Your task to perform on an android device: change keyboard looks Image 0: 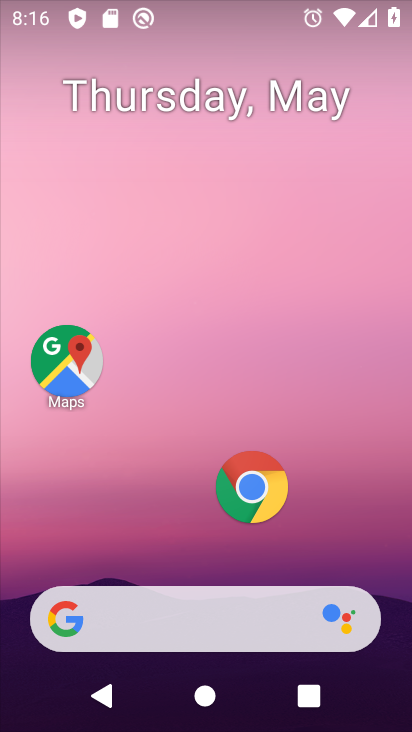
Step 0: click (218, 53)
Your task to perform on an android device: change keyboard looks Image 1: 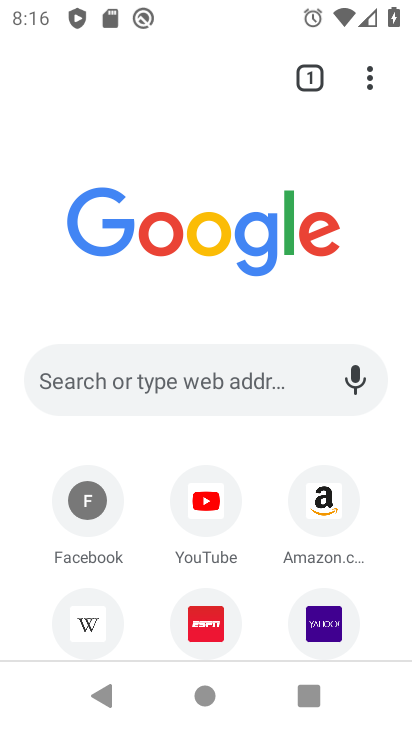
Step 1: press back button
Your task to perform on an android device: change keyboard looks Image 2: 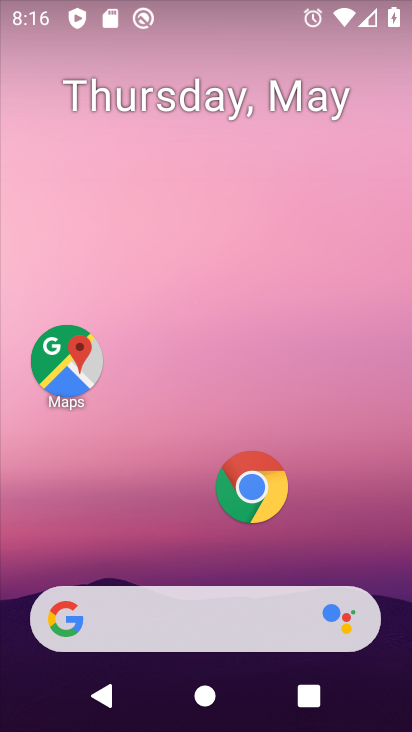
Step 2: drag from (264, 607) to (196, 93)
Your task to perform on an android device: change keyboard looks Image 3: 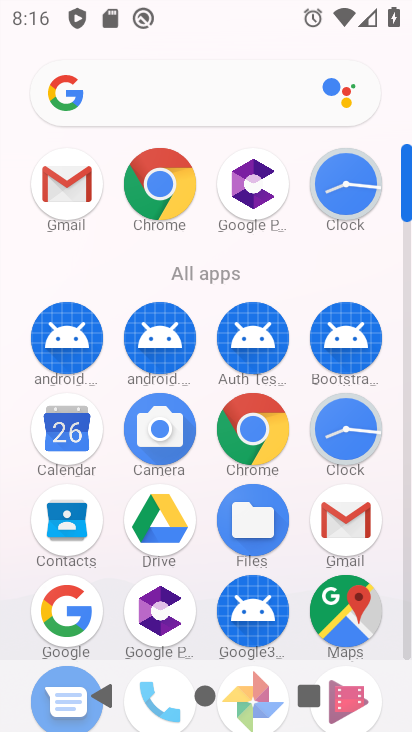
Step 3: drag from (404, 489) to (405, 535)
Your task to perform on an android device: change keyboard looks Image 4: 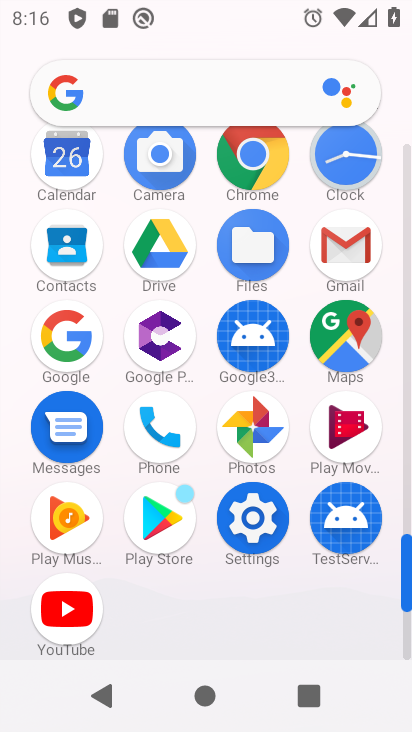
Step 4: click (254, 530)
Your task to perform on an android device: change keyboard looks Image 5: 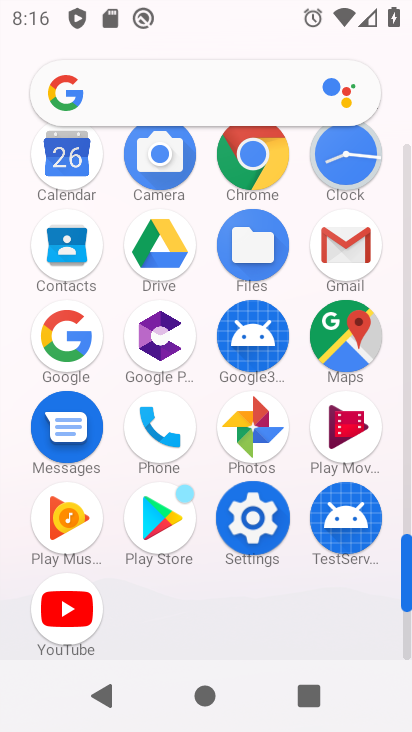
Step 5: click (254, 529)
Your task to perform on an android device: change keyboard looks Image 6: 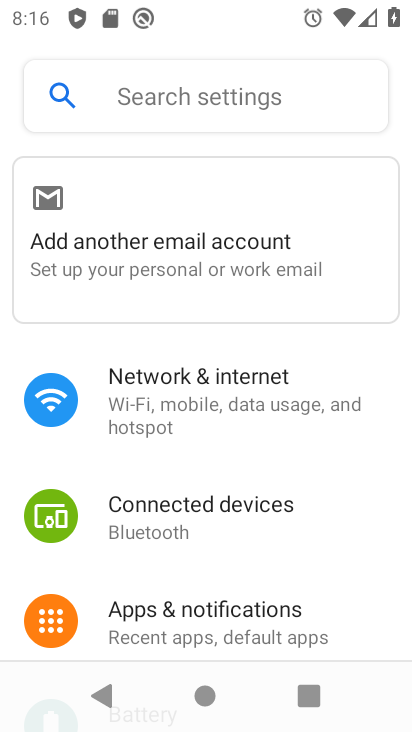
Step 6: click (379, 536)
Your task to perform on an android device: change keyboard looks Image 7: 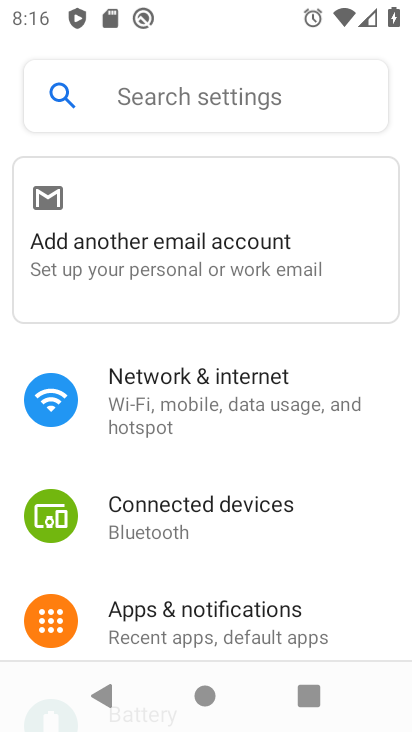
Step 7: drag from (347, 579) to (303, 181)
Your task to perform on an android device: change keyboard looks Image 8: 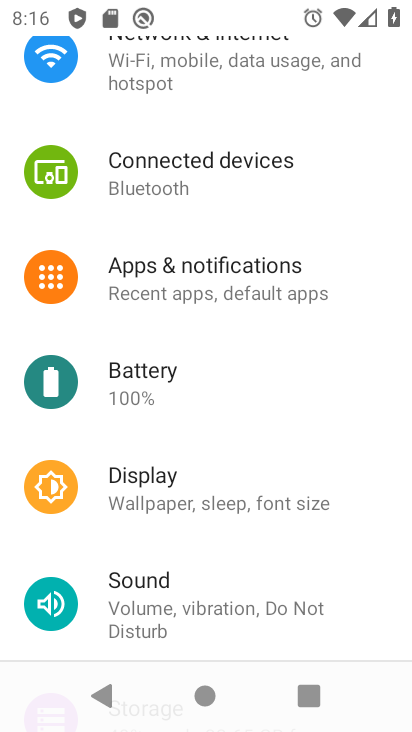
Step 8: drag from (298, 551) to (291, 4)
Your task to perform on an android device: change keyboard looks Image 9: 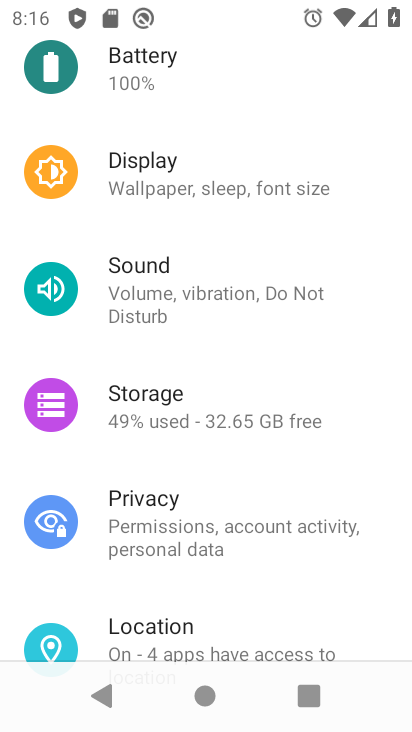
Step 9: drag from (188, 454) to (219, 14)
Your task to perform on an android device: change keyboard looks Image 10: 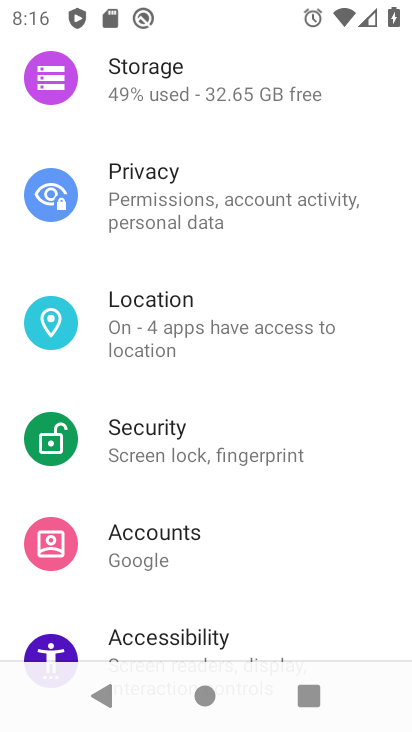
Step 10: drag from (216, 371) to (216, 38)
Your task to perform on an android device: change keyboard looks Image 11: 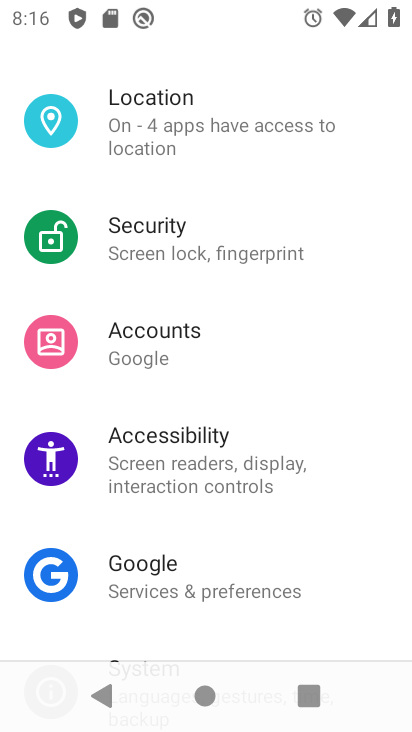
Step 11: drag from (209, 482) to (250, 128)
Your task to perform on an android device: change keyboard looks Image 12: 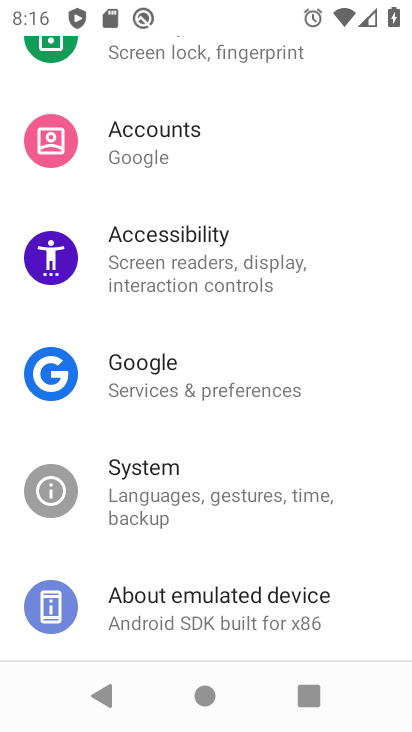
Step 12: click (145, 502)
Your task to perform on an android device: change keyboard looks Image 13: 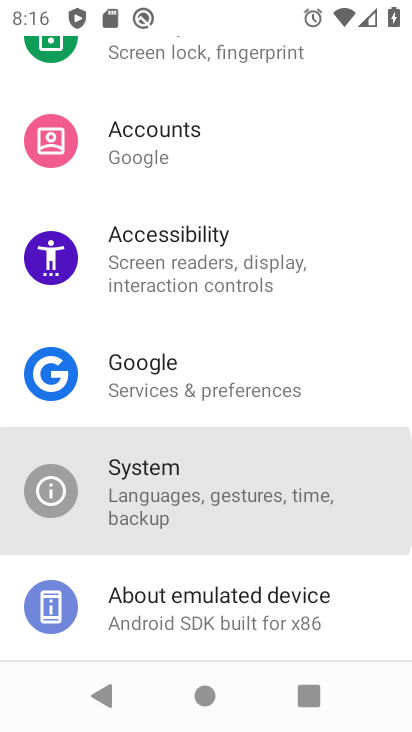
Step 13: click (148, 500)
Your task to perform on an android device: change keyboard looks Image 14: 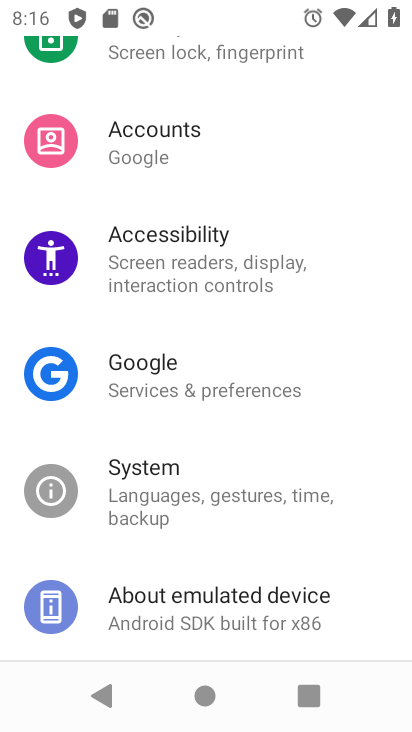
Step 14: click (148, 500)
Your task to perform on an android device: change keyboard looks Image 15: 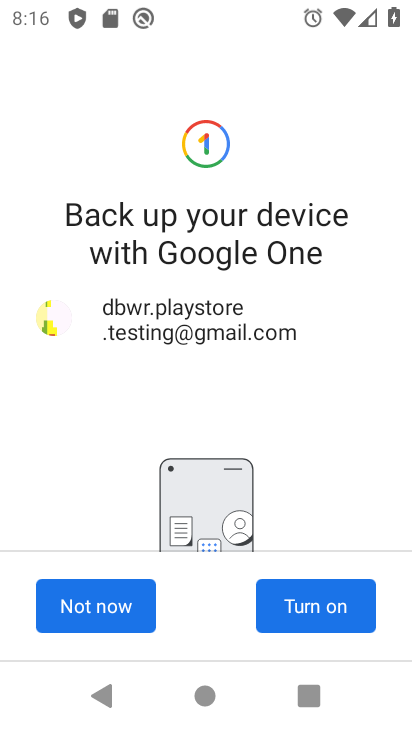
Step 15: press back button
Your task to perform on an android device: change keyboard looks Image 16: 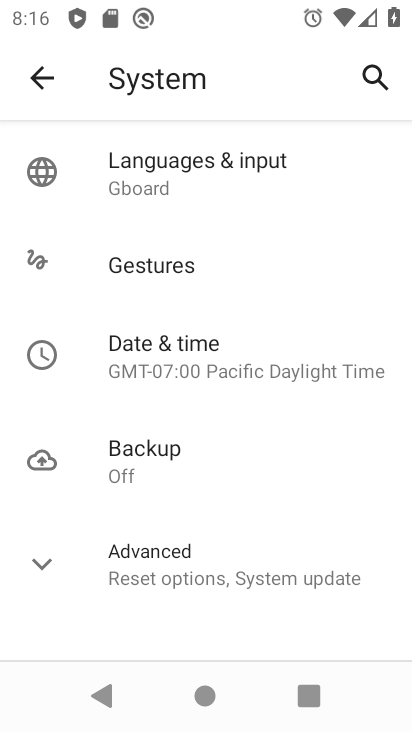
Step 16: click (141, 184)
Your task to perform on an android device: change keyboard looks Image 17: 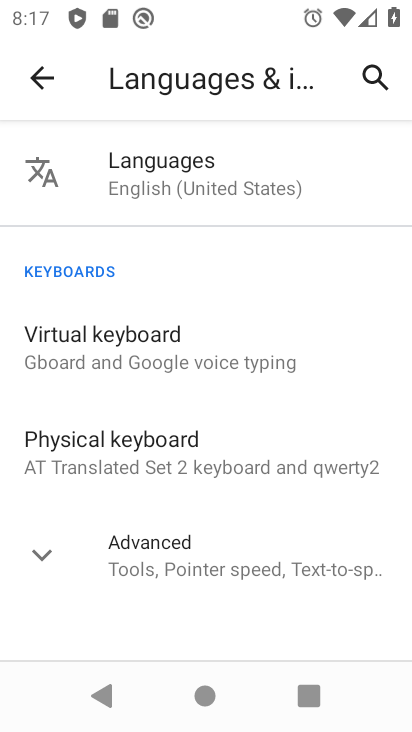
Step 17: click (108, 352)
Your task to perform on an android device: change keyboard looks Image 18: 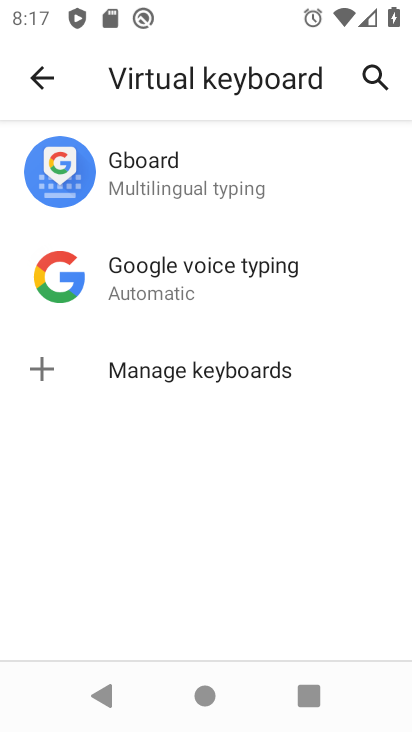
Step 18: click (139, 147)
Your task to perform on an android device: change keyboard looks Image 19: 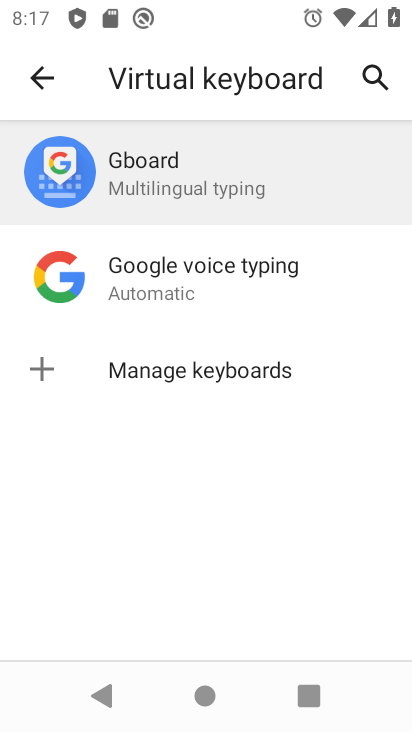
Step 19: click (142, 170)
Your task to perform on an android device: change keyboard looks Image 20: 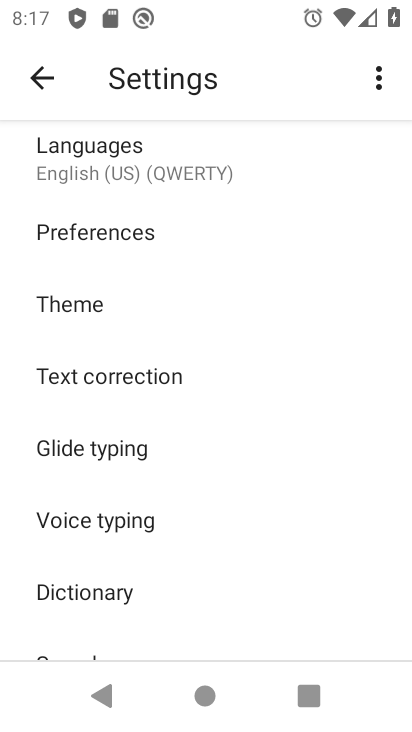
Step 20: click (55, 310)
Your task to perform on an android device: change keyboard looks Image 21: 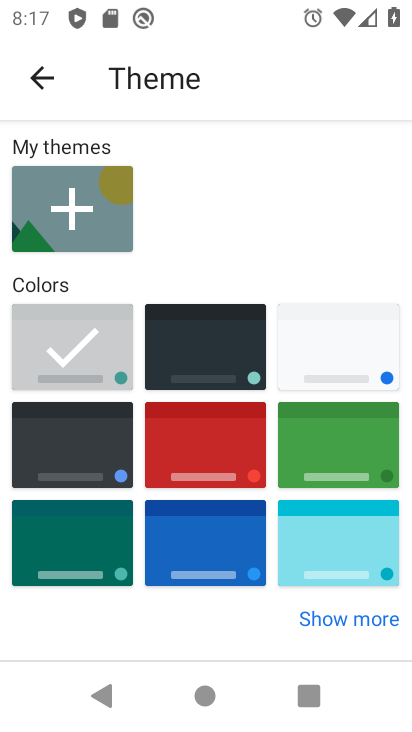
Step 21: click (178, 450)
Your task to perform on an android device: change keyboard looks Image 22: 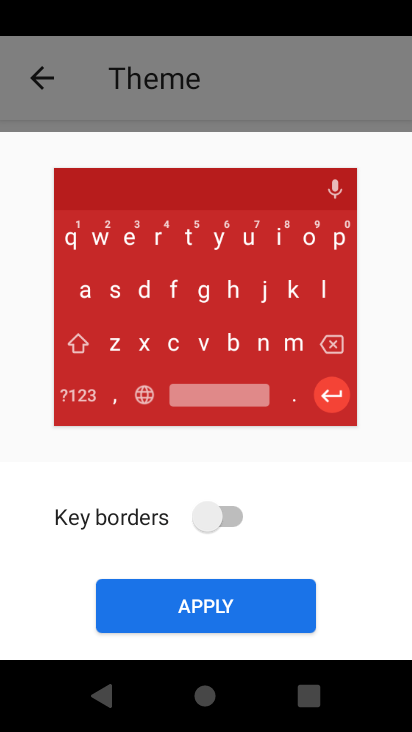
Step 22: click (237, 610)
Your task to perform on an android device: change keyboard looks Image 23: 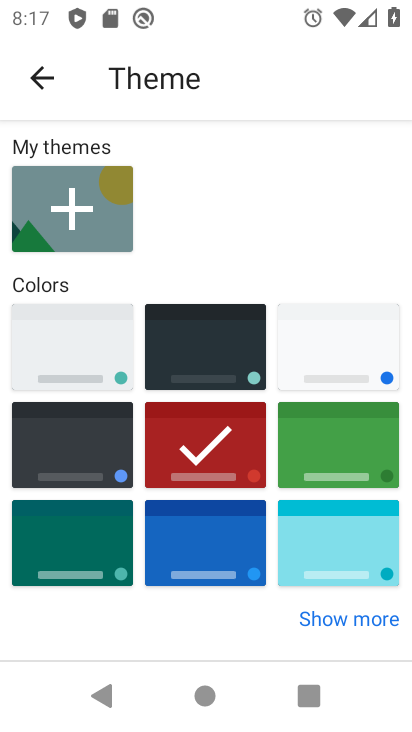
Step 23: task complete